Your task to perform on an android device: turn on notifications settings in the gmail app Image 0: 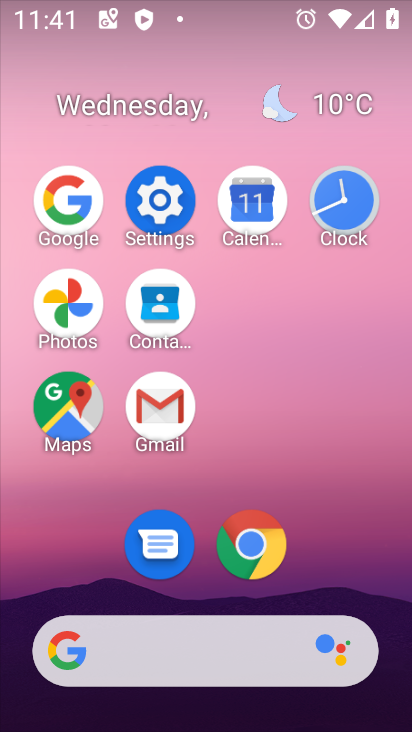
Step 0: click (162, 425)
Your task to perform on an android device: turn on notifications settings in the gmail app Image 1: 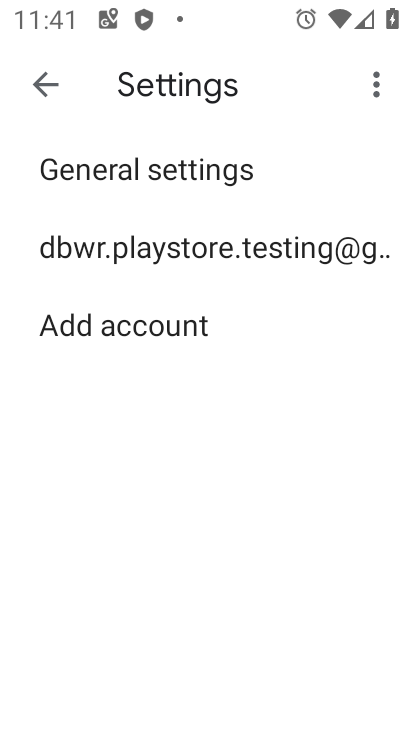
Step 1: click (255, 258)
Your task to perform on an android device: turn on notifications settings in the gmail app Image 2: 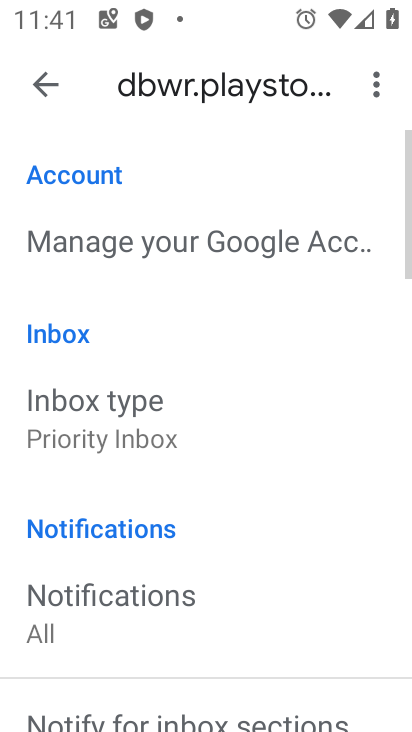
Step 2: click (154, 632)
Your task to perform on an android device: turn on notifications settings in the gmail app Image 3: 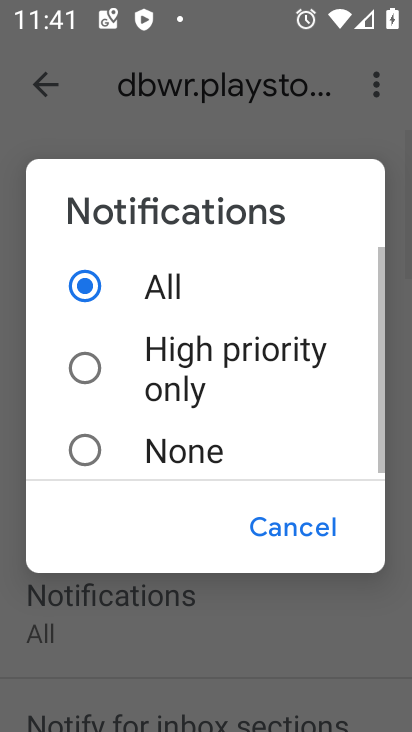
Step 3: task complete